Your task to perform on an android device: install app "McDonald's" Image 0: 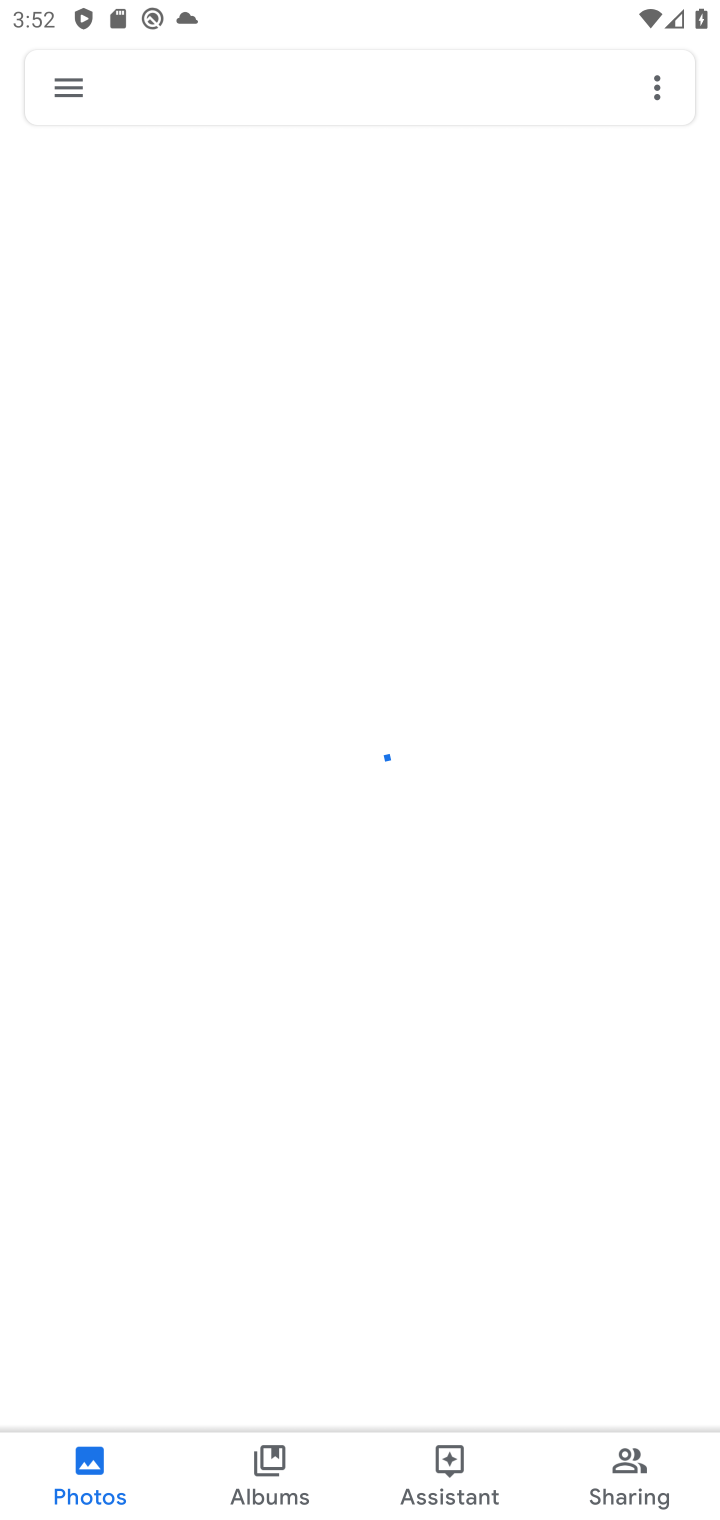
Step 0: press home button
Your task to perform on an android device: install app "McDonald's" Image 1: 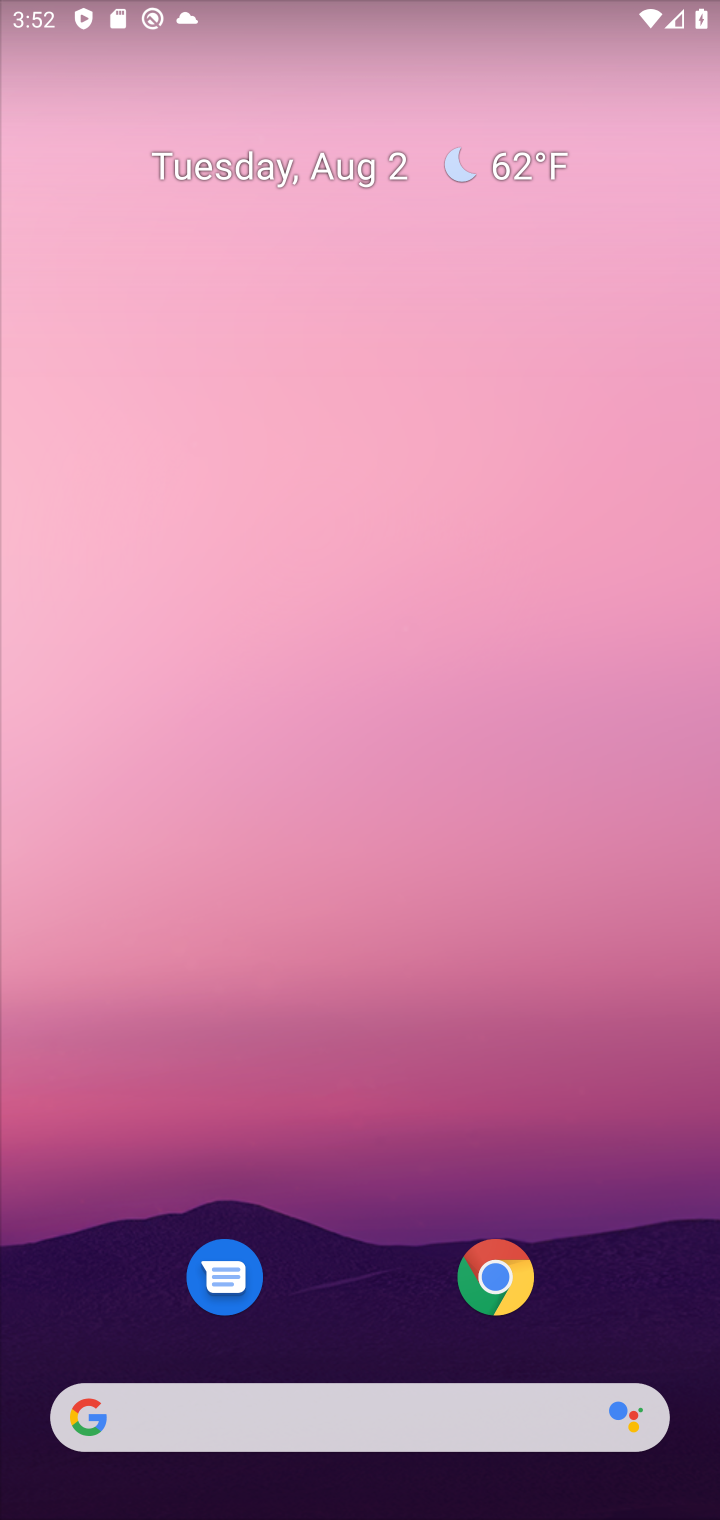
Step 1: drag from (391, 1129) to (353, 42)
Your task to perform on an android device: install app "McDonald's" Image 2: 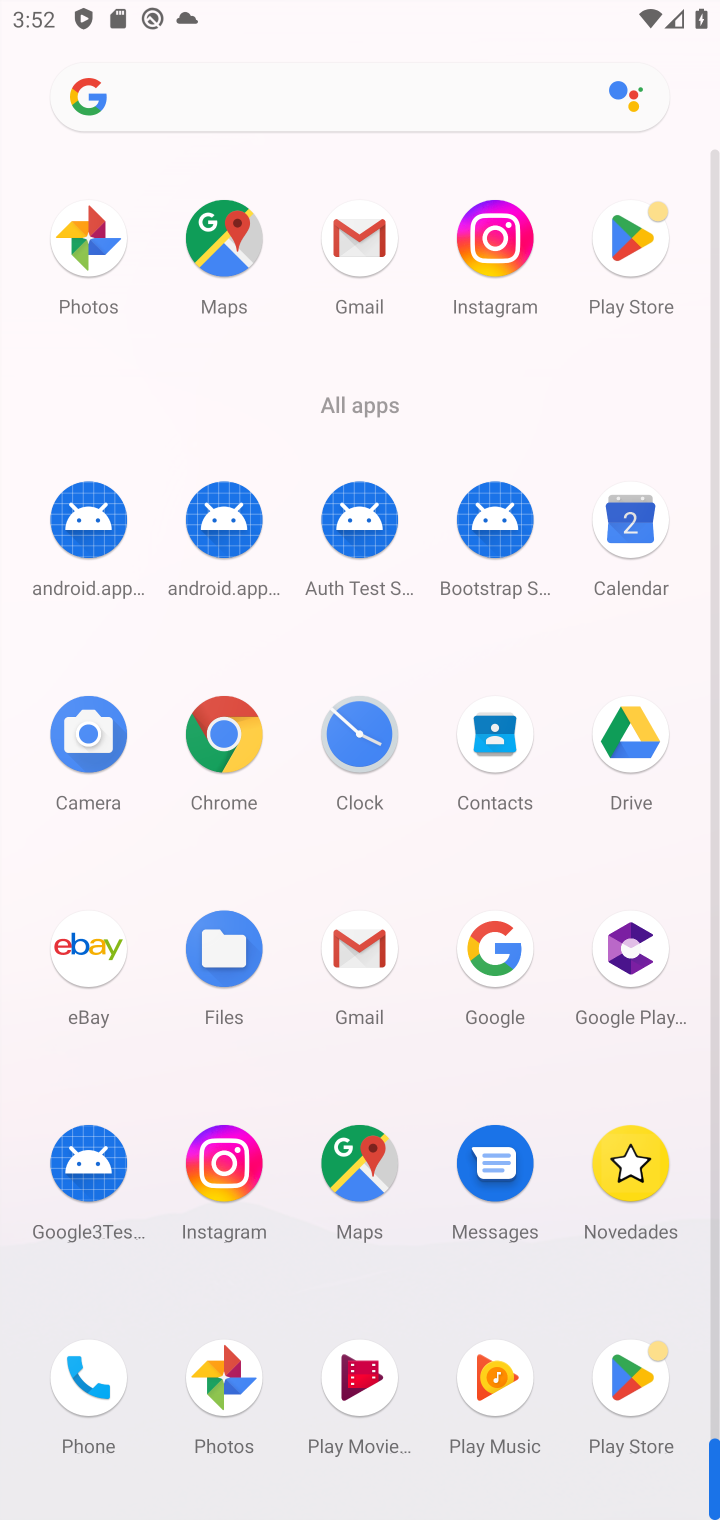
Step 2: click (617, 1365)
Your task to perform on an android device: install app "McDonald's" Image 3: 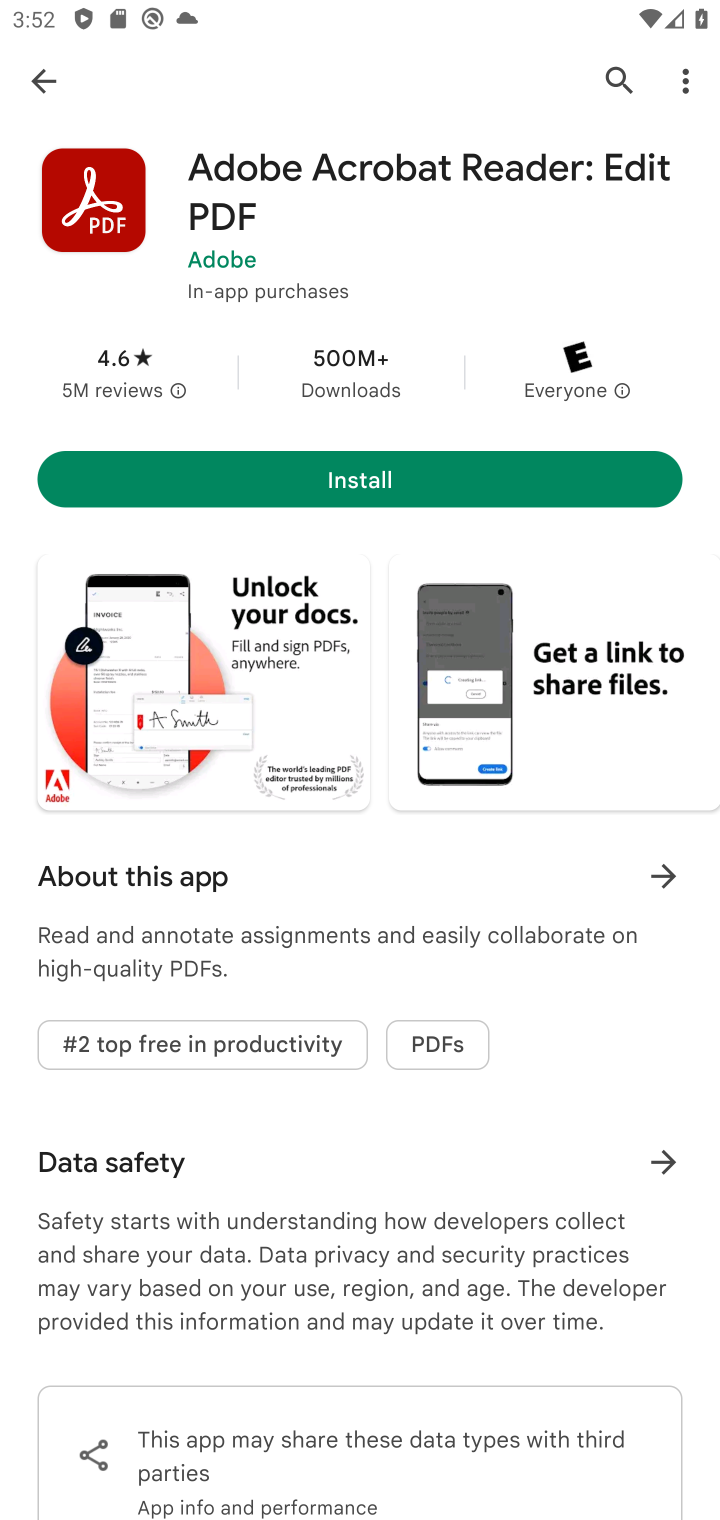
Step 3: click (598, 71)
Your task to perform on an android device: install app "McDonald's" Image 4: 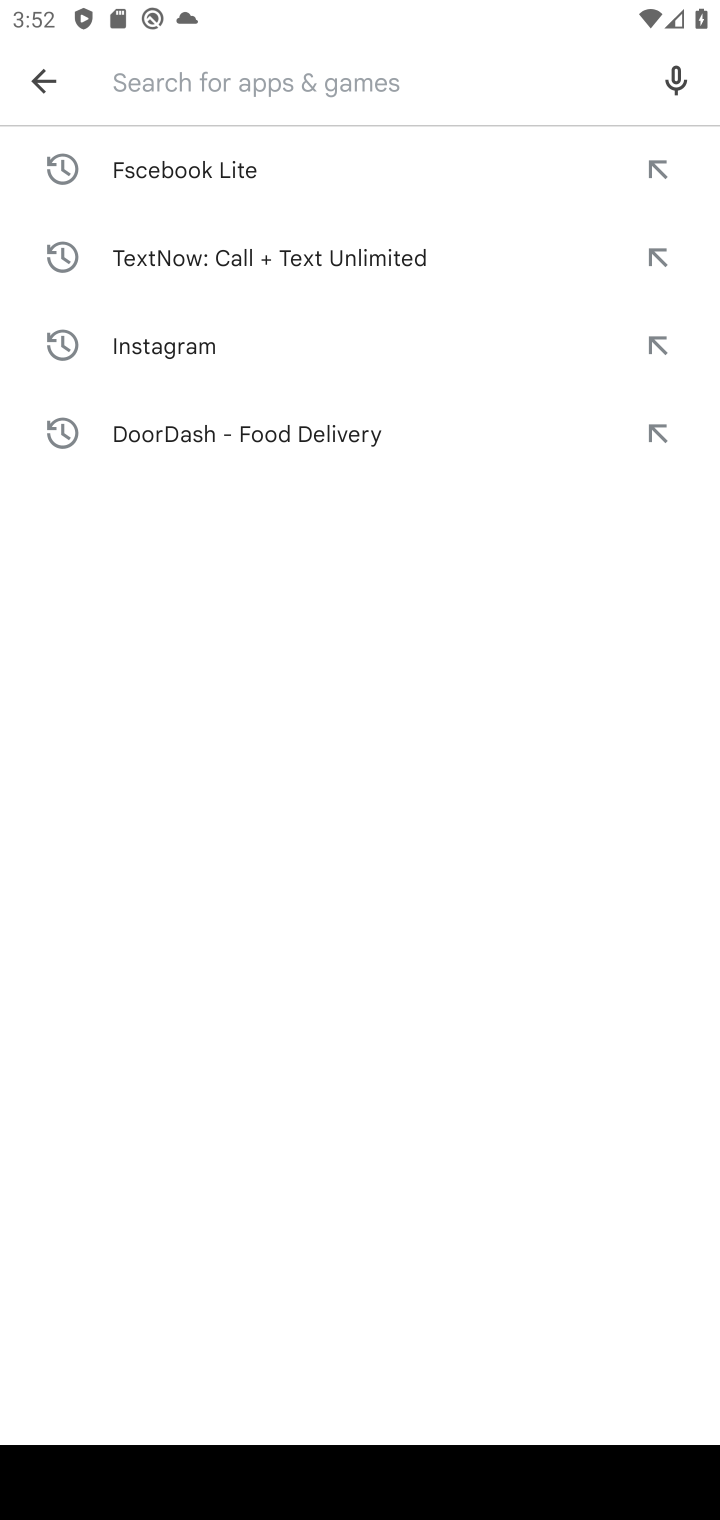
Step 4: type "Mcdonald's"
Your task to perform on an android device: install app "McDonald's" Image 5: 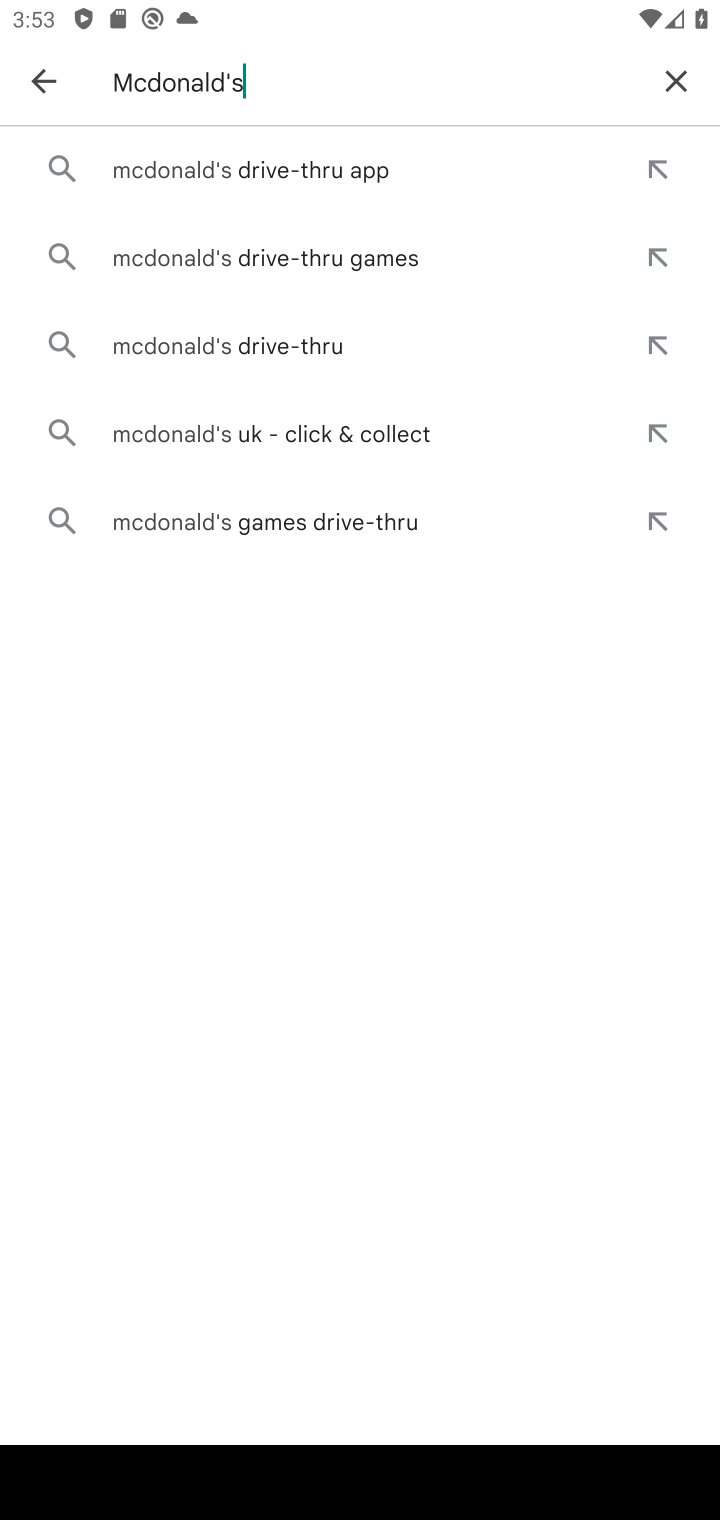
Step 5: press enter
Your task to perform on an android device: install app "McDonald's" Image 6: 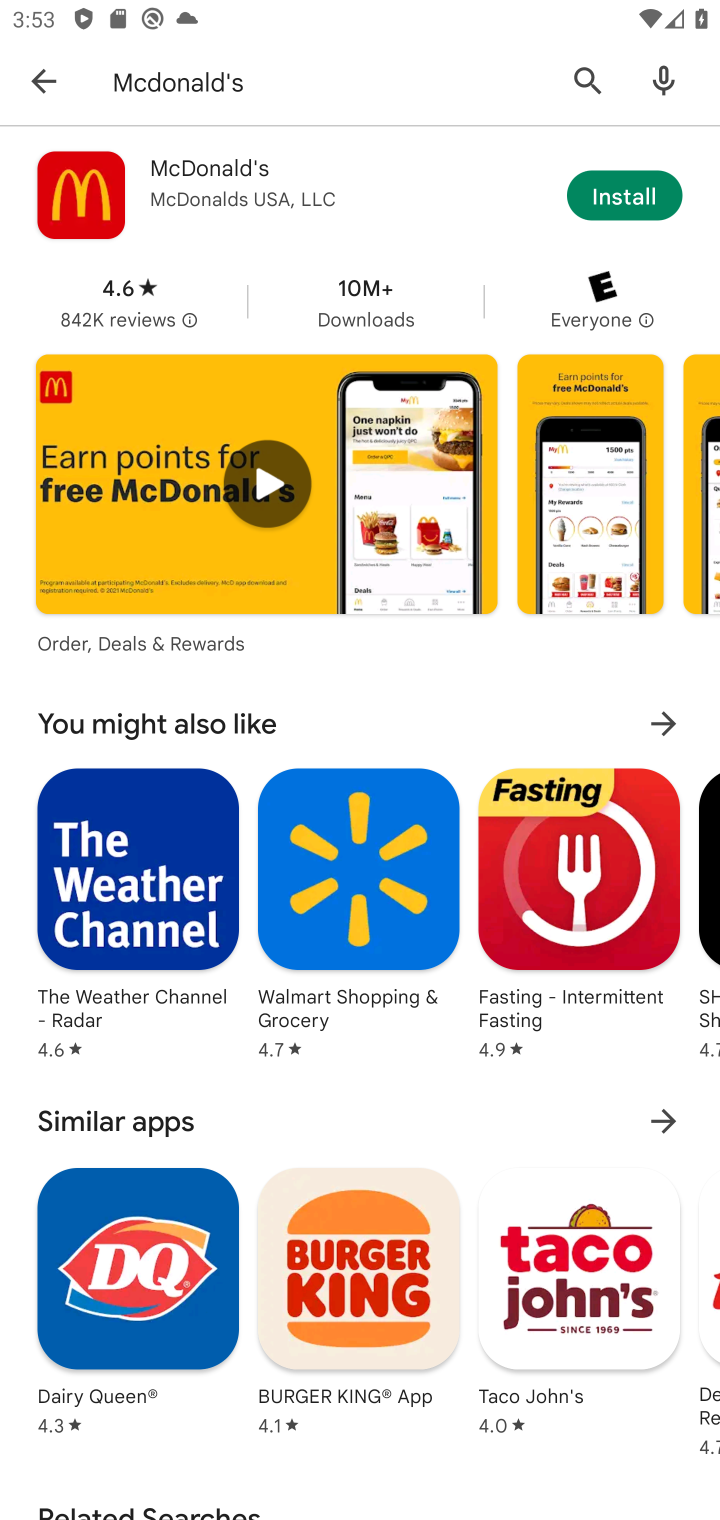
Step 6: click (647, 167)
Your task to perform on an android device: install app "McDonald's" Image 7: 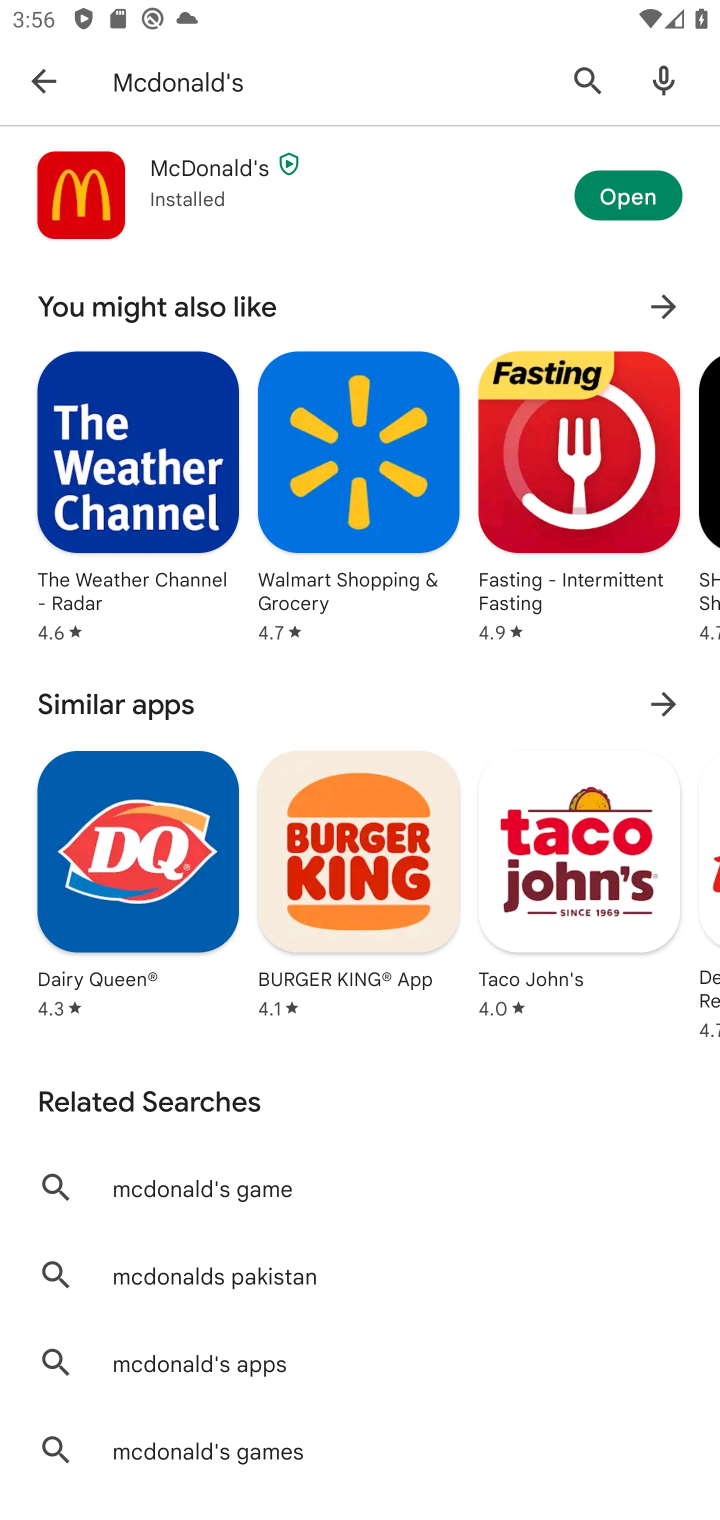
Step 7: task complete